Your task to perform on an android device: turn off picture-in-picture Image 0: 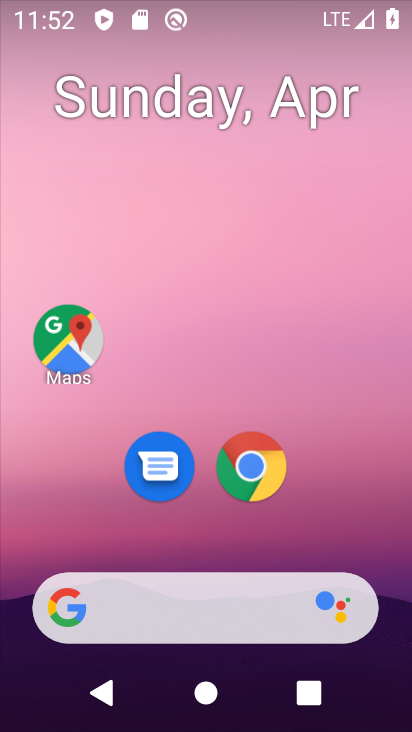
Step 0: drag from (341, 484) to (323, 43)
Your task to perform on an android device: turn off picture-in-picture Image 1: 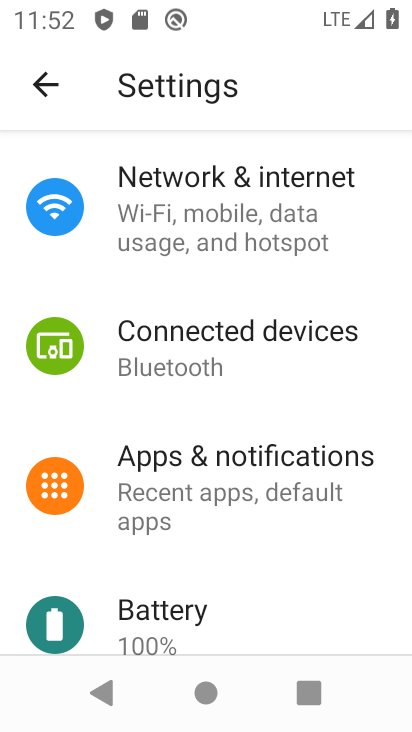
Step 1: press home button
Your task to perform on an android device: turn off picture-in-picture Image 2: 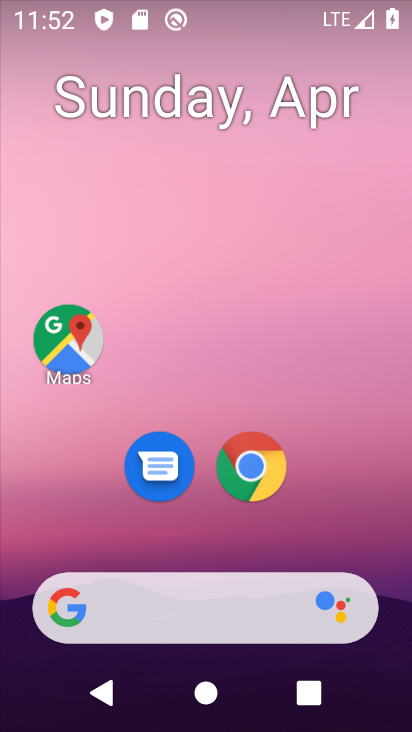
Step 2: click (252, 472)
Your task to perform on an android device: turn off picture-in-picture Image 3: 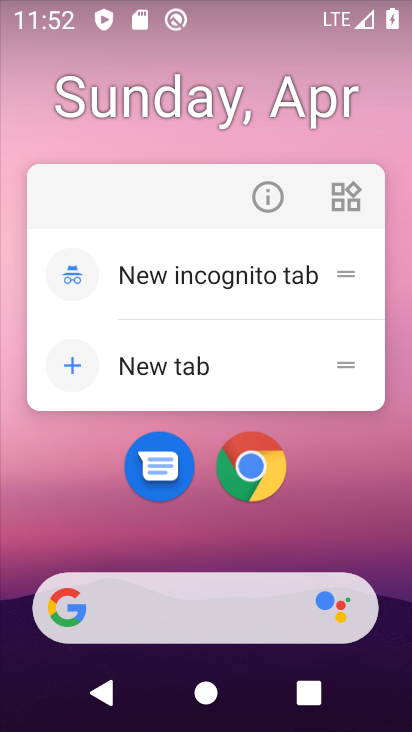
Step 3: click (267, 188)
Your task to perform on an android device: turn off picture-in-picture Image 4: 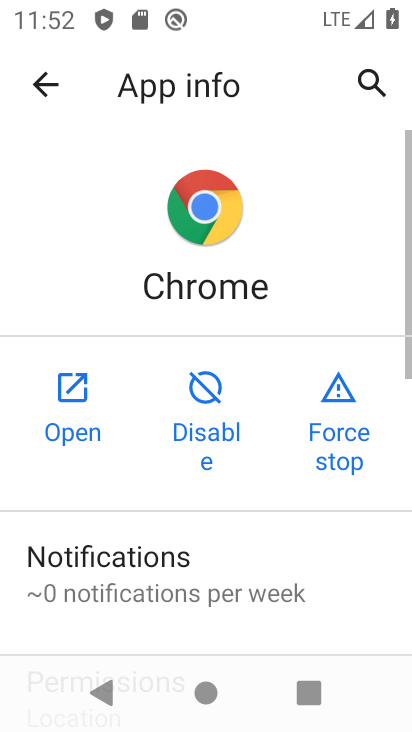
Step 4: drag from (299, 568) to (218, 91)
Your task to perform on an android device: turn off picture-in-picture Image 5: 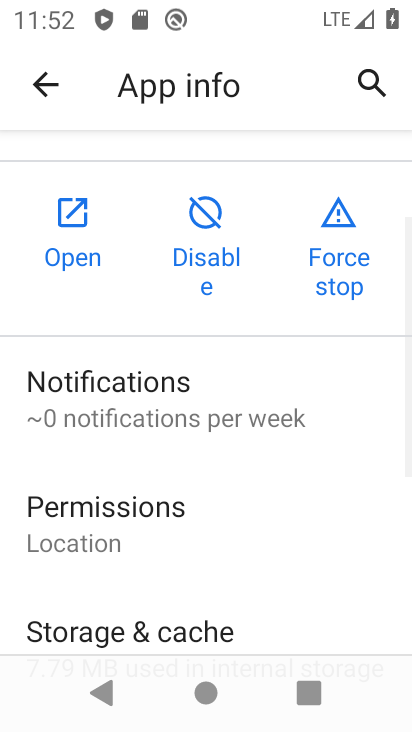
Step 5: drag from (270, 596) to (232, 152)
Your task to perform on an android device: turn off picture-in-picture Image 6: 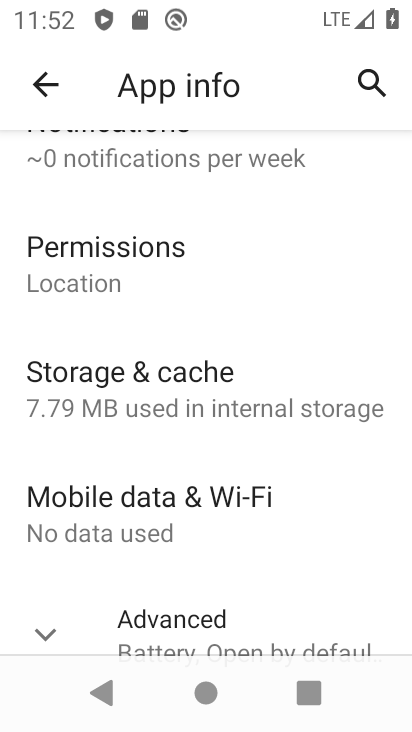
Step 6: drag from (296, 582) to (273, 212)
Your task to perform on an android device: turn off picture-in-picture Image 7: 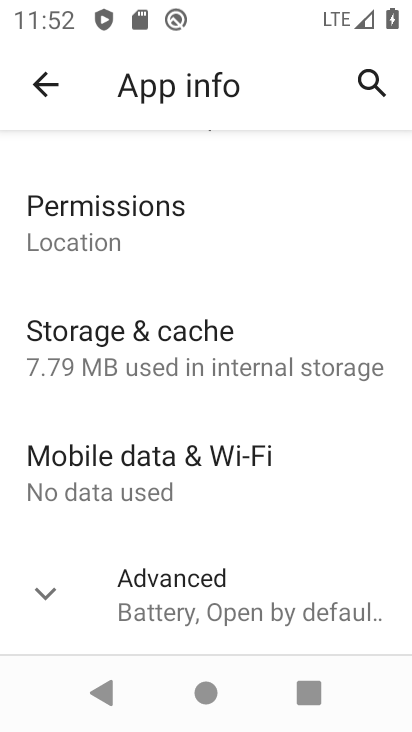
Step 7: click (275, 582)
Your task to perform on an android device: turn off picture-in-picture Image 8: 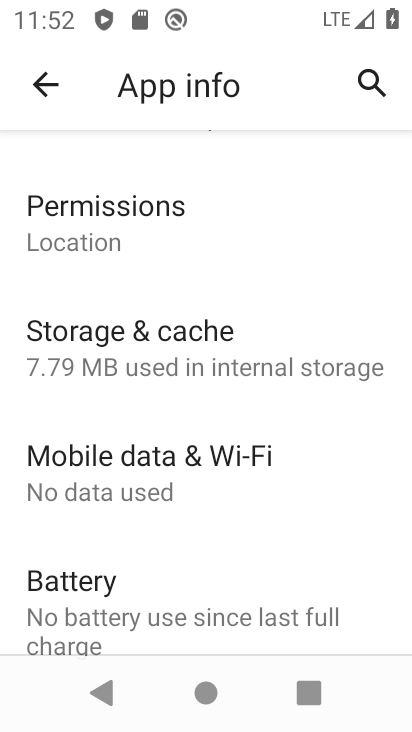
Step 8: drag from (275, 584) to (249, 219)
Your task to perform on an android device: turn off picture-in-picture Image 9: 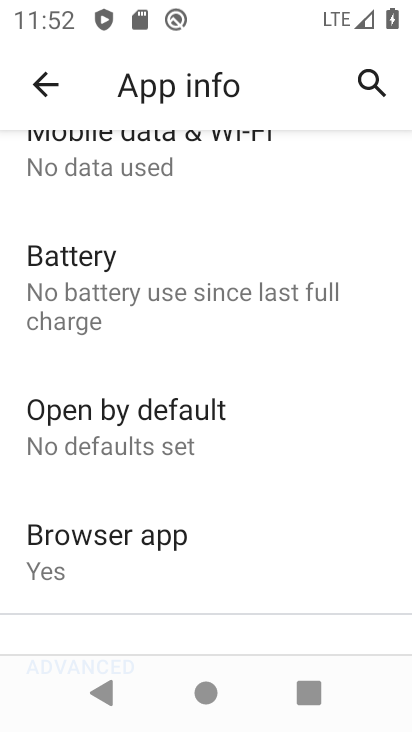
Step 9: drag from (262, 648) to (243, 356)
Your task to perform on an android device: turn off picture-in-picture Image 10: 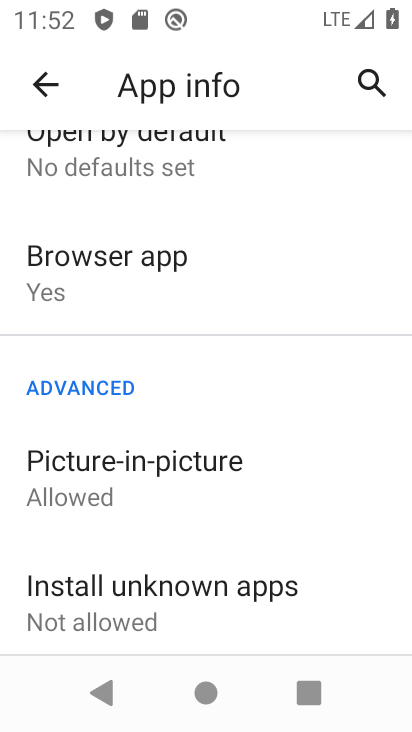
Step 10: click (254, 458)
Your task to perform on an android device: turn off picture-in-picture Image 11: 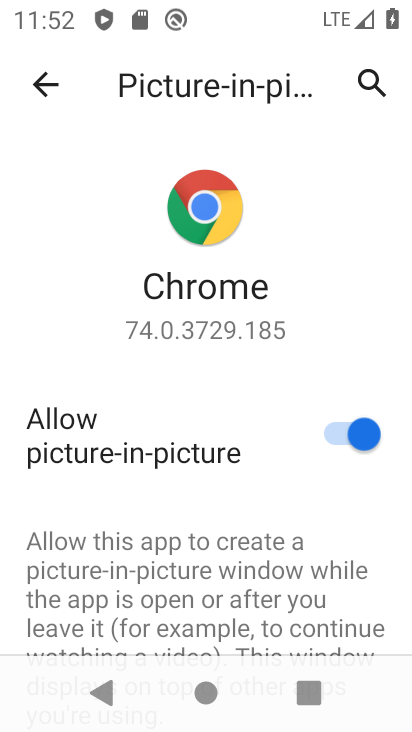
Step 11: click (333, 444)
Your task to perform on an android device: turn off picture-in-picture Image 12: 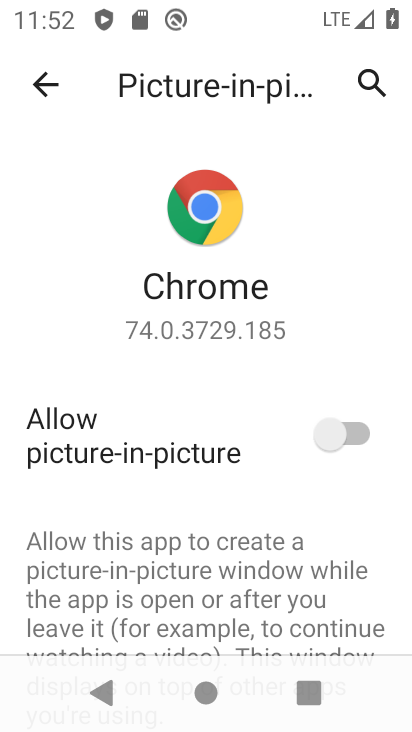
Step 12: task complete